Your task to perform on an android device: turn notification dots on Image 0: 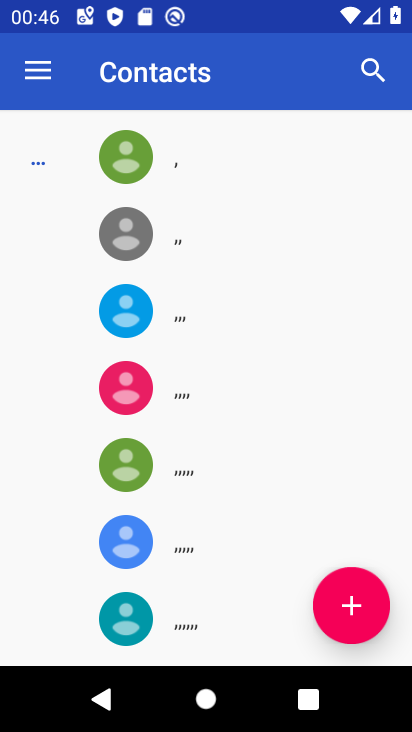
Step 0: press home button
Your task to perform on an android device: turn notification dots on Image 1: 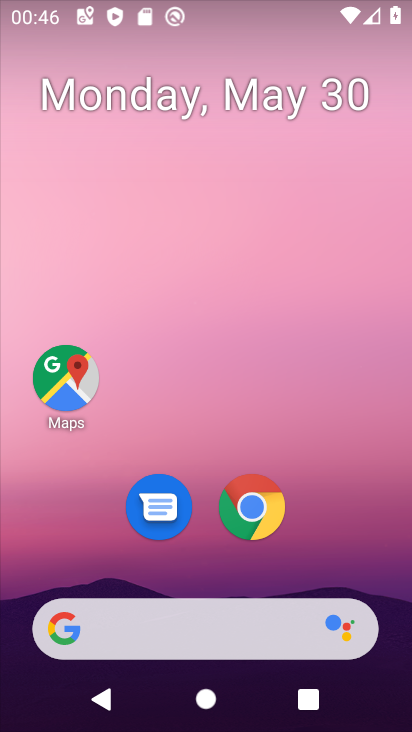
Step 1: drag from (308, 535) to (294, 241)
Your task to perform on an android device: turn notification dots on Image 2: 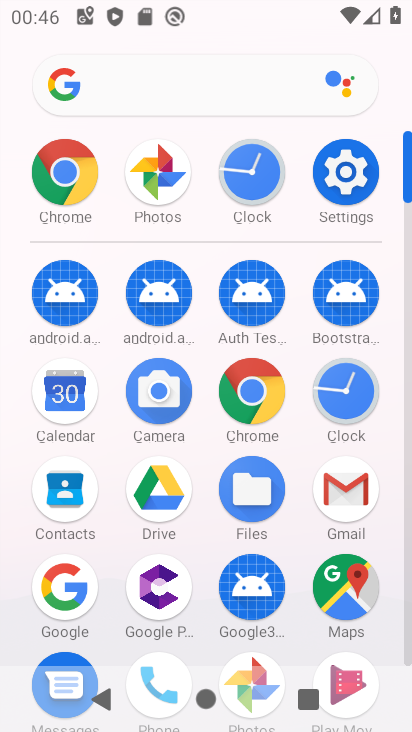
Step 2: click (333, 157)
Your task to perform on an android device: turn notification dots on Image 3: 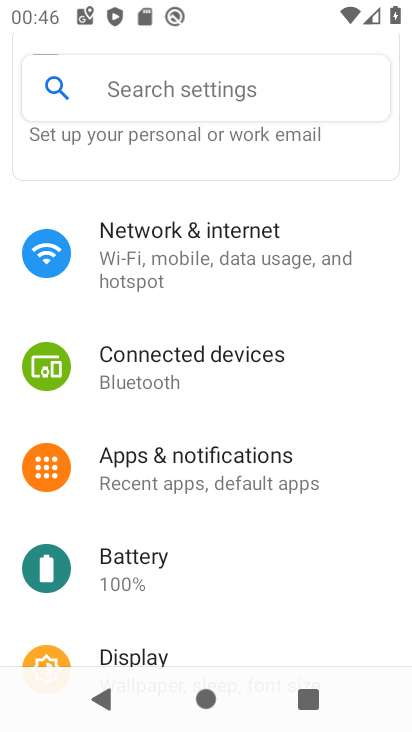
Step 3: click (214, 85)
Your task to perform on an android device: turn notification dots on Image 4: 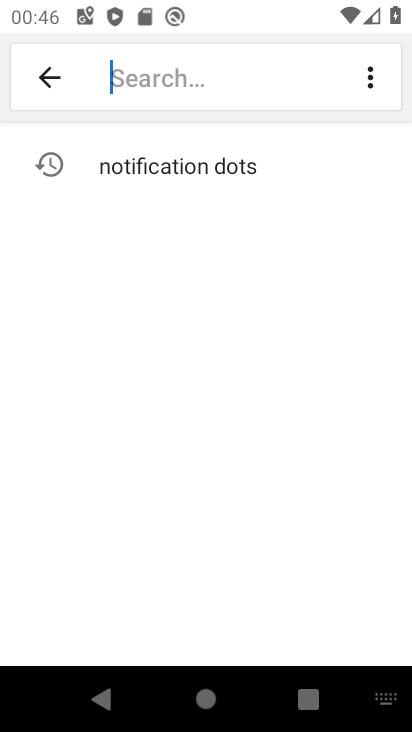
Step 4: click (190, 159)
Your task to perform on an android device: turn notification dots on Image 5: 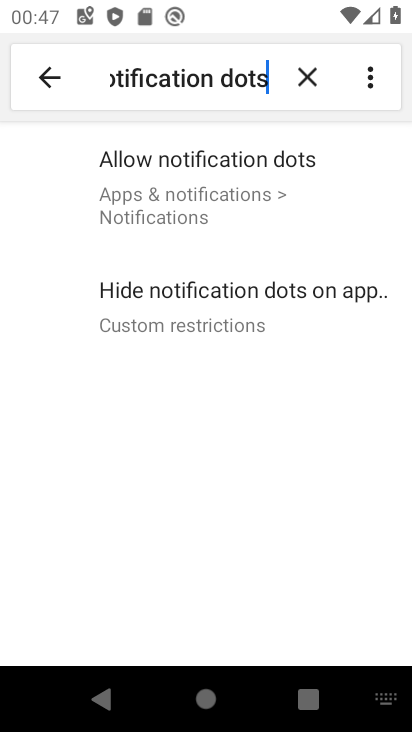
Step 5: click (167, 173)
Your task to perform on an android device: turn notification dots on Image 6: 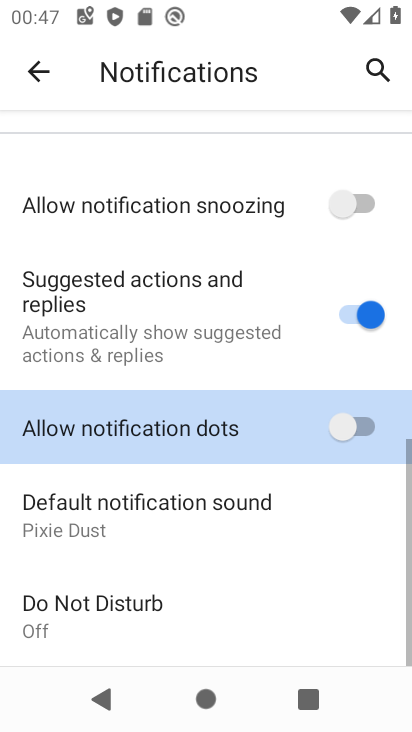
Step 6: click (333, 431)
Your task to perform on an android device: turn notification dots on Image 7: 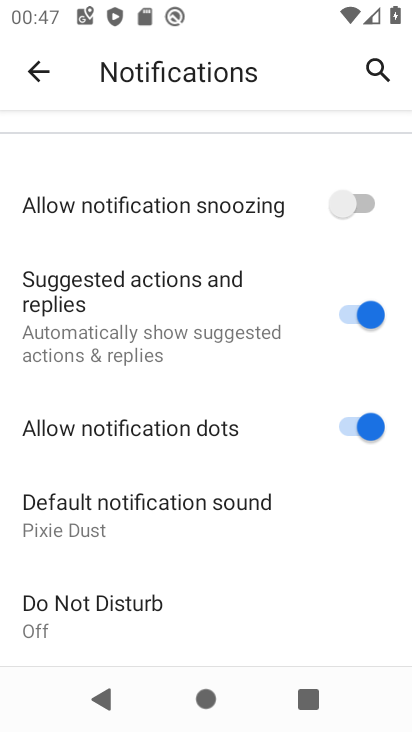
Step 7: task complete